Your task to perform on an android device: Play the last video I watched on Youtube Image 0: 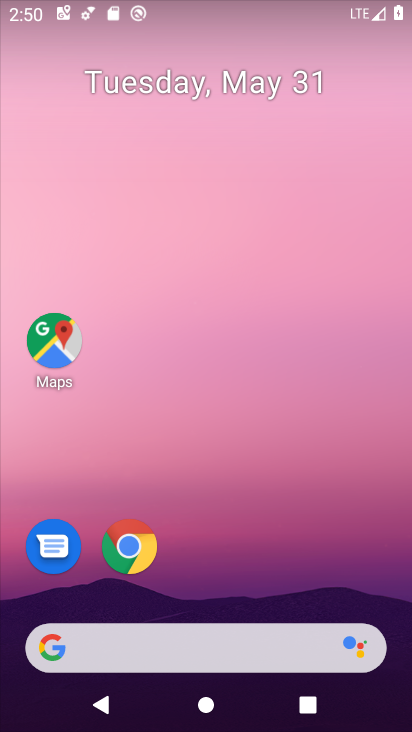
Step 0: press home button
Your task to perform on an android device: Play the last video I watched on Youtube Image 1: 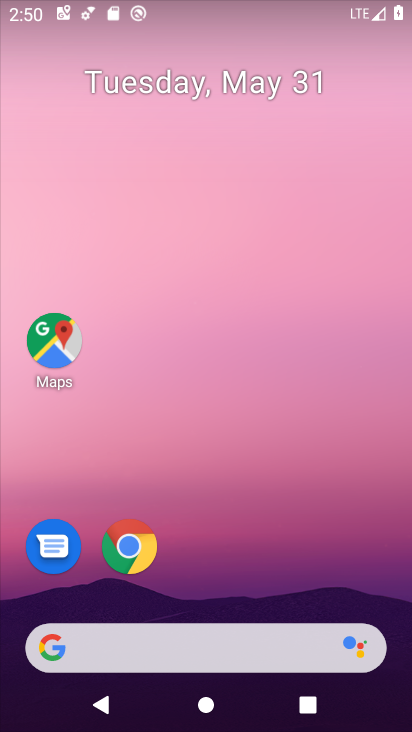
Step 1: drag from (318, 497) to (210, 5)
Your task to perform on an android device: Play the last video I watched on Youtube Image 2: 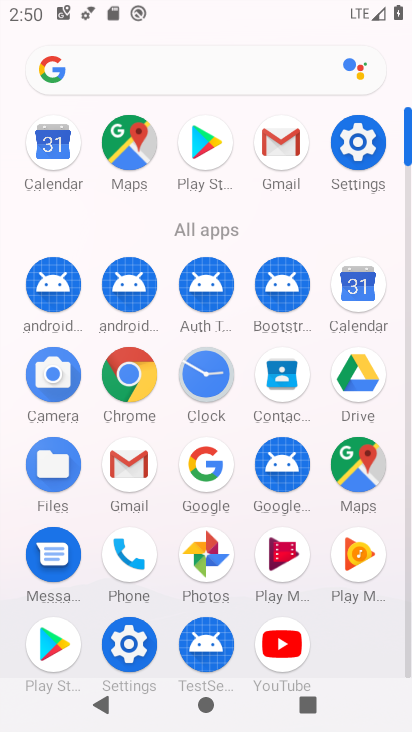
Step 2: click (283, 643)
Your task to perform on an android device: Play the last video I watched on Youtube Image 3: 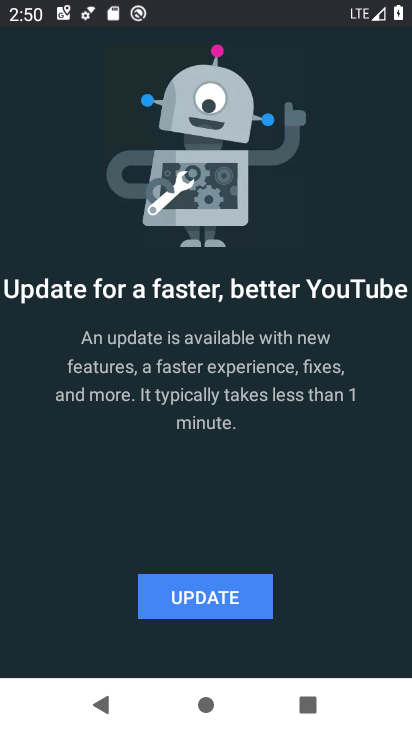
Step 3: click (235, 585)
Your task to perform on an android device: Play the last video I watched on Youtube Image 4: 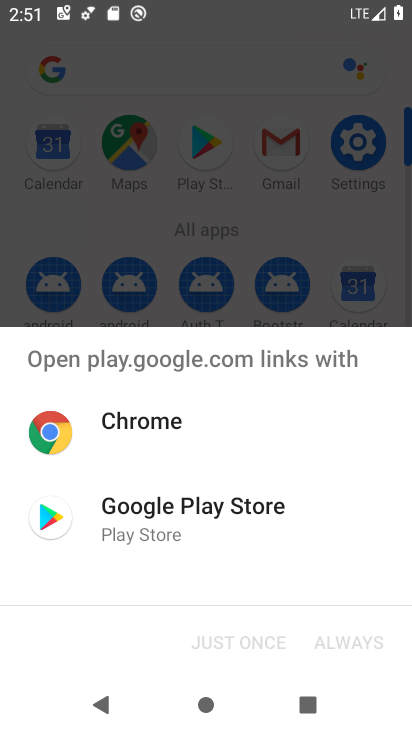
Step 4: click (203, 516)
Your task to perform on an android device: Play the last video I watched on Youtube Image 5: 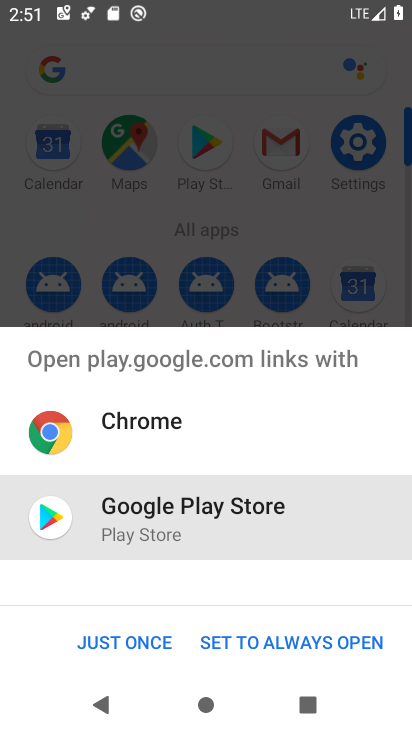
Step 5: click (139, 633)
Your task to perform on an android device: Play the last video I watched on Youtube Image 6: 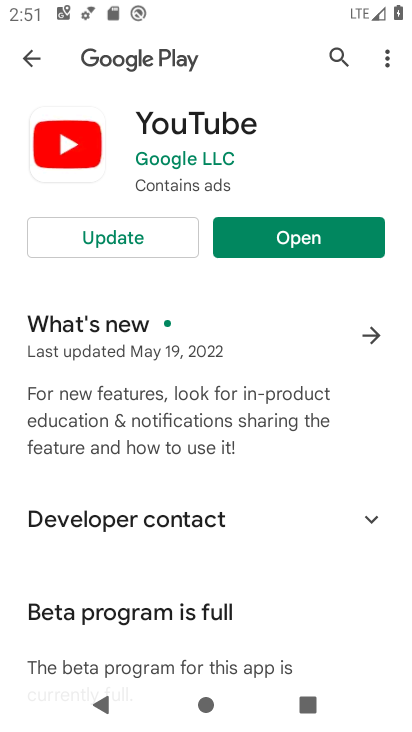
Step 6: click (130, 236)
Your task to perform on an android device: Play the last video I watched on Youtube Image 7: 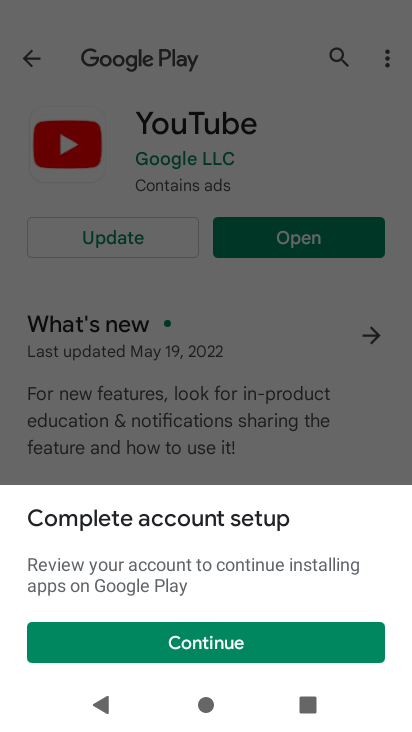
Step 7: click (289, 645)
Your task to perform on an android device: Play the last video I watched on Youtube Image 8: 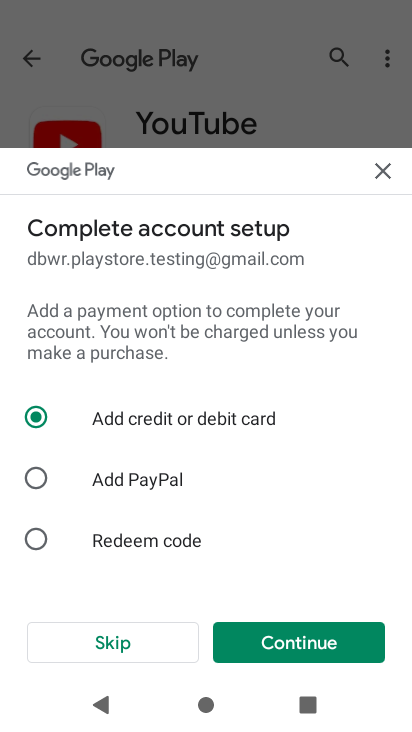
Step 8: click (138, 633)
Your task to perform on an android device: Play the last video I watched on Youtube Image 9: 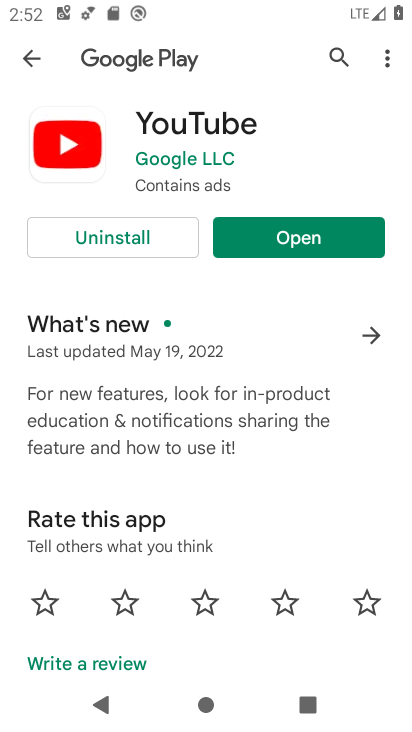
Step 9: click (267, 235)
Your task to perform on an android device: Play the last video I watched on Youtube Image 10: 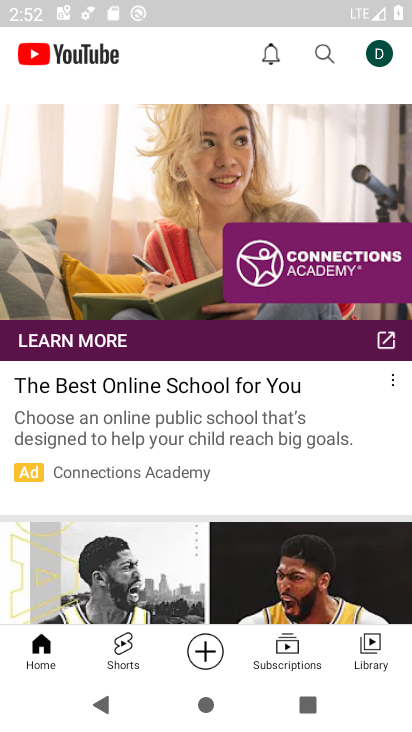
Step 10: click (381, 645)
Your task to perform on an android device: Play the last video I watched on Youtube Image 11: 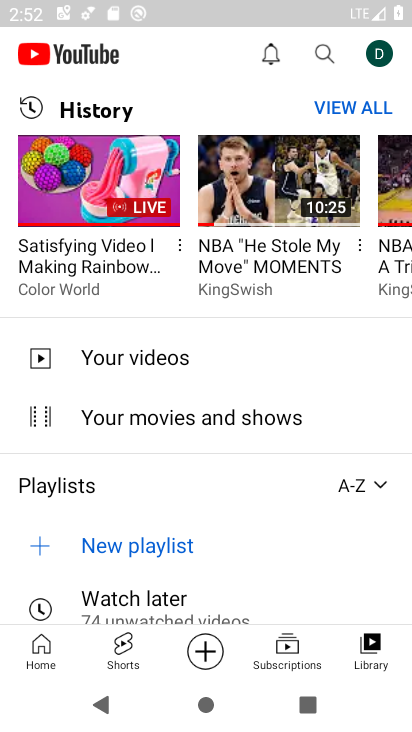
Step 11: click (63, 176)
Your task to perform on an android device: Play the last video I watched on Youtube Image 12: 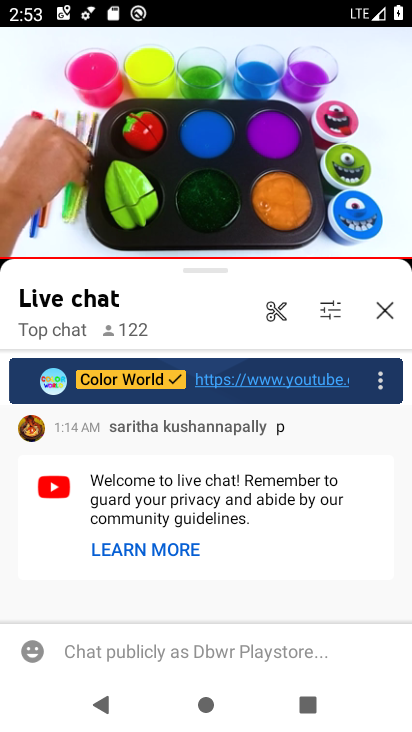
Step 12: click (224, 152)
Your task to perform on an android device: Play the last video I watched on Youtube Image 13: 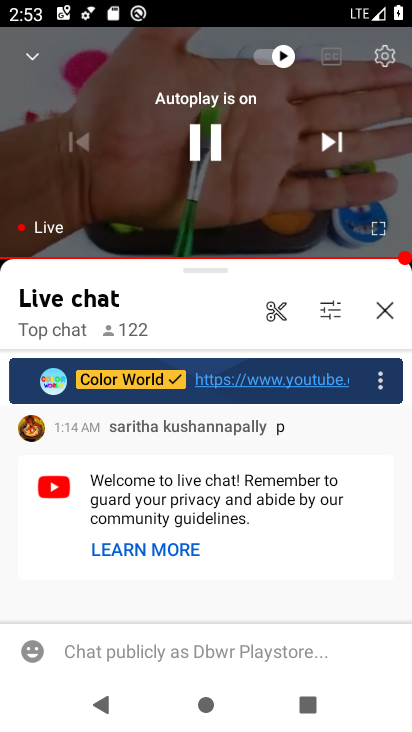
Step 13: click (225, 152)
Your task to perform on an android device: Play the last video I watched on Youtube Image 14: 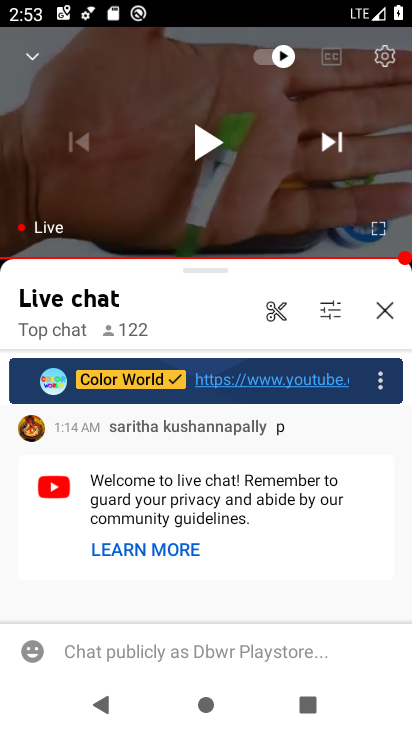
Step 14: task complete